Your task to perform on an android device: install app "Lyft - Rideshare, Bikes, Scooters & Transit" Image 0: 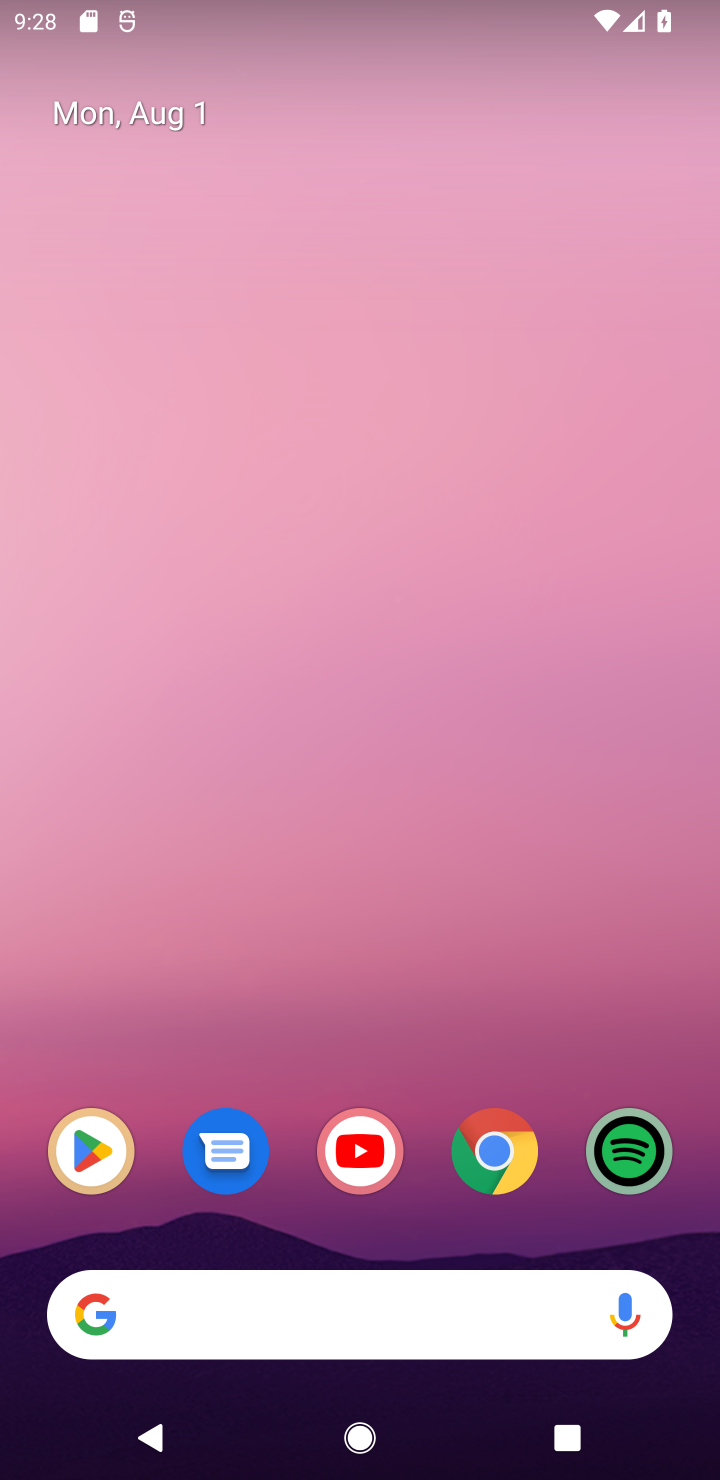
Step 0: drag from (395, 1245) to (404, 123)
Your task to perform on an android device: install app "Lyft - Rideshare, Bikes, Scooters & Transit" Image 1: 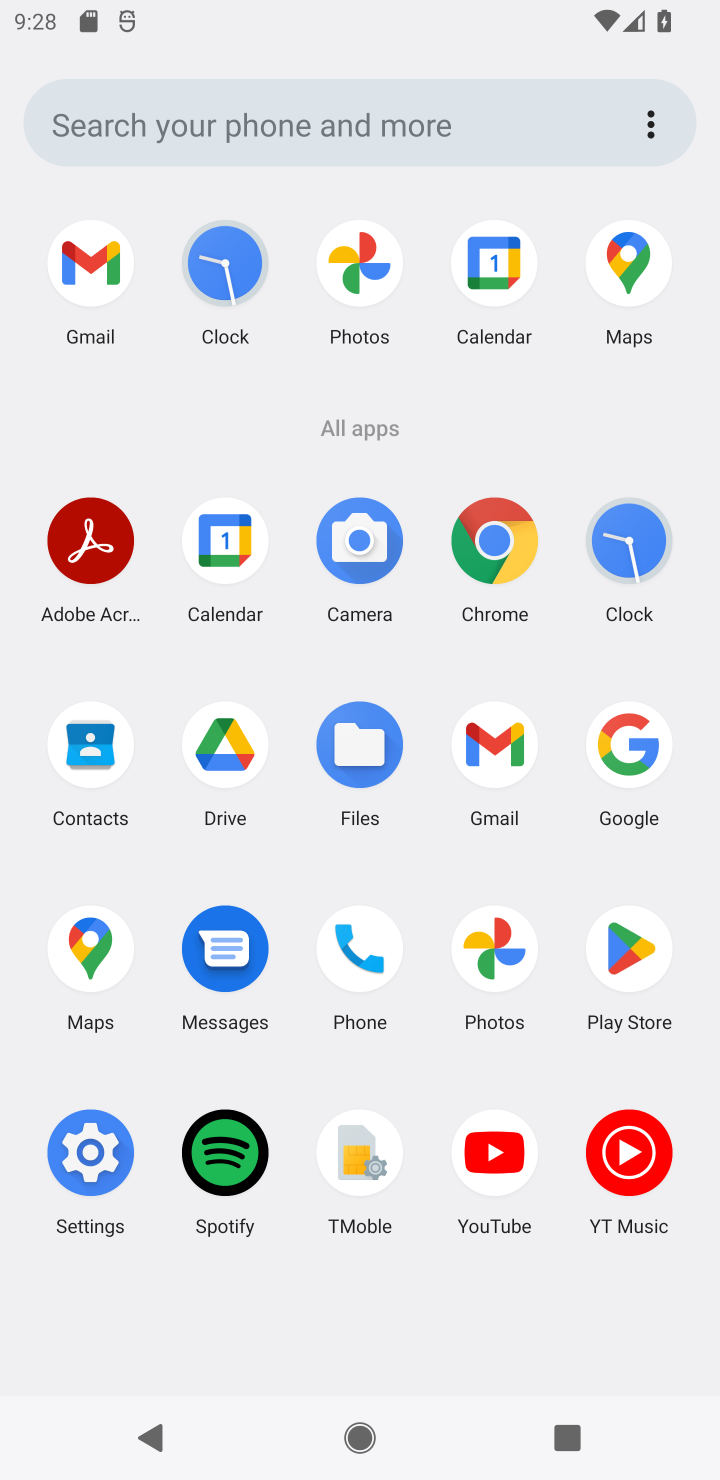
Step 1: click (634, 943)
Your task to perform on an android device: install app "Lyft - Rideshare, Bikes, Scooters & Transit" Image 2: 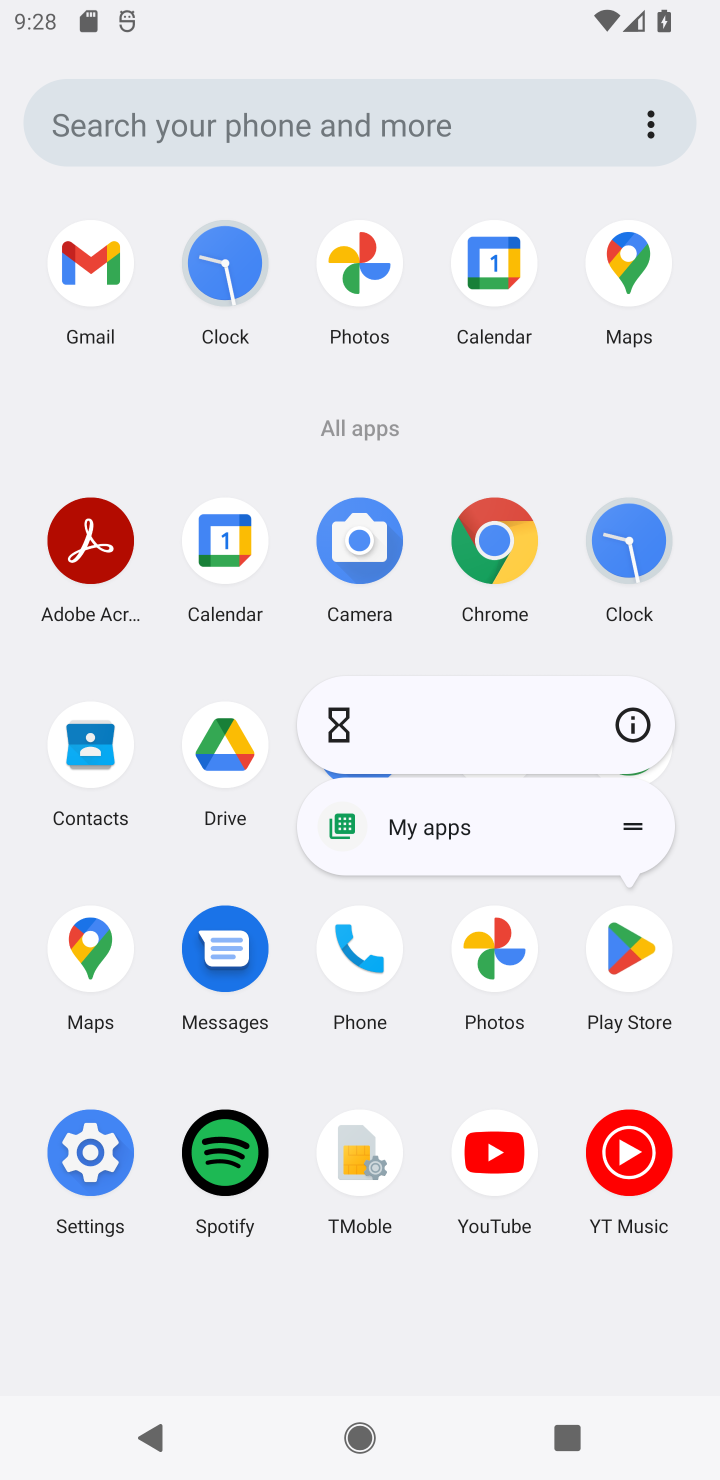
Step 2: click (610, 967)
Your task to perform on an android device: install app "Lyft - Rideshare, Bikes, Scooters & Transit" Image 3: 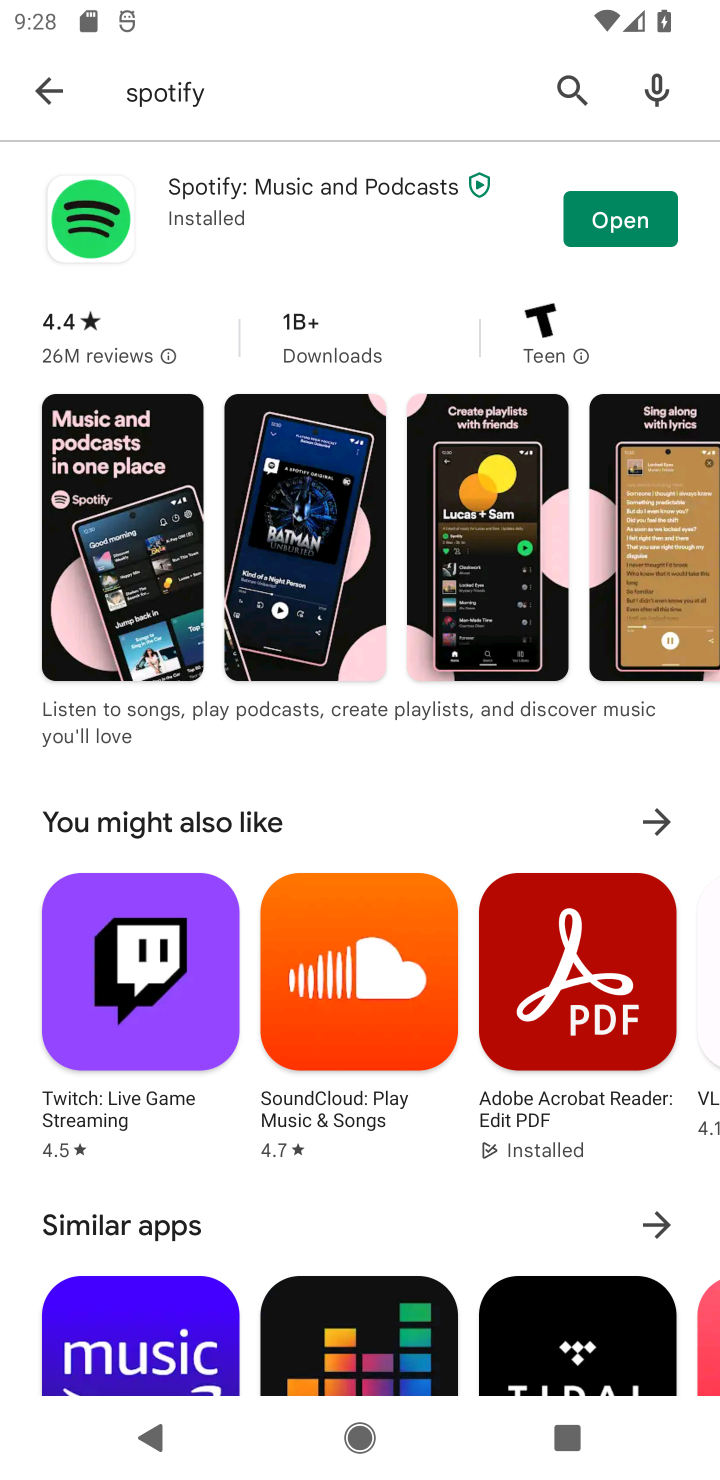
Step 3: click (610, 967)
Your task to perform on an android device: install app "Lyft - Rideshare, Bikes, Scooters & Transit" Image 4: 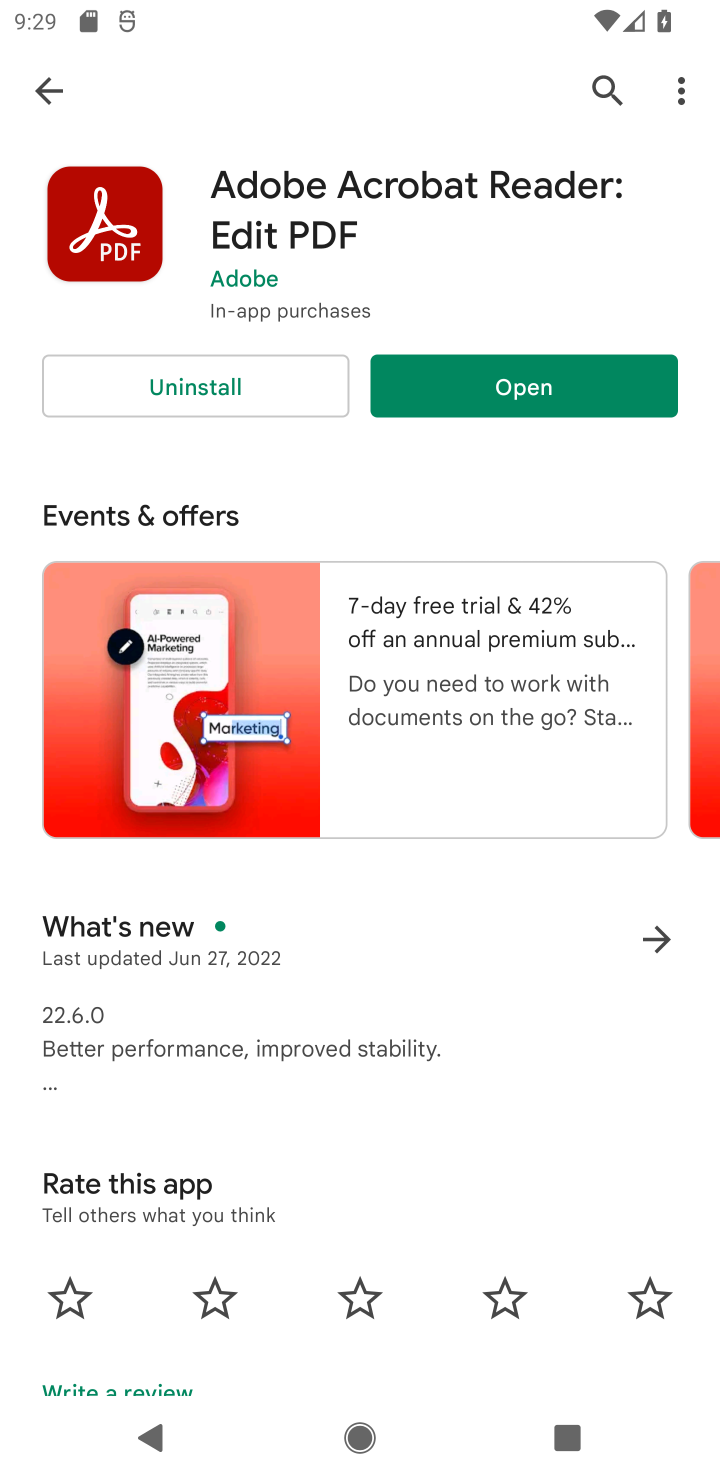
Step 4: click (49, 102)
Your task to perform on an android device: install app "Lyft - Rideshare, Bikes, Scooters & Transit" Image 5: 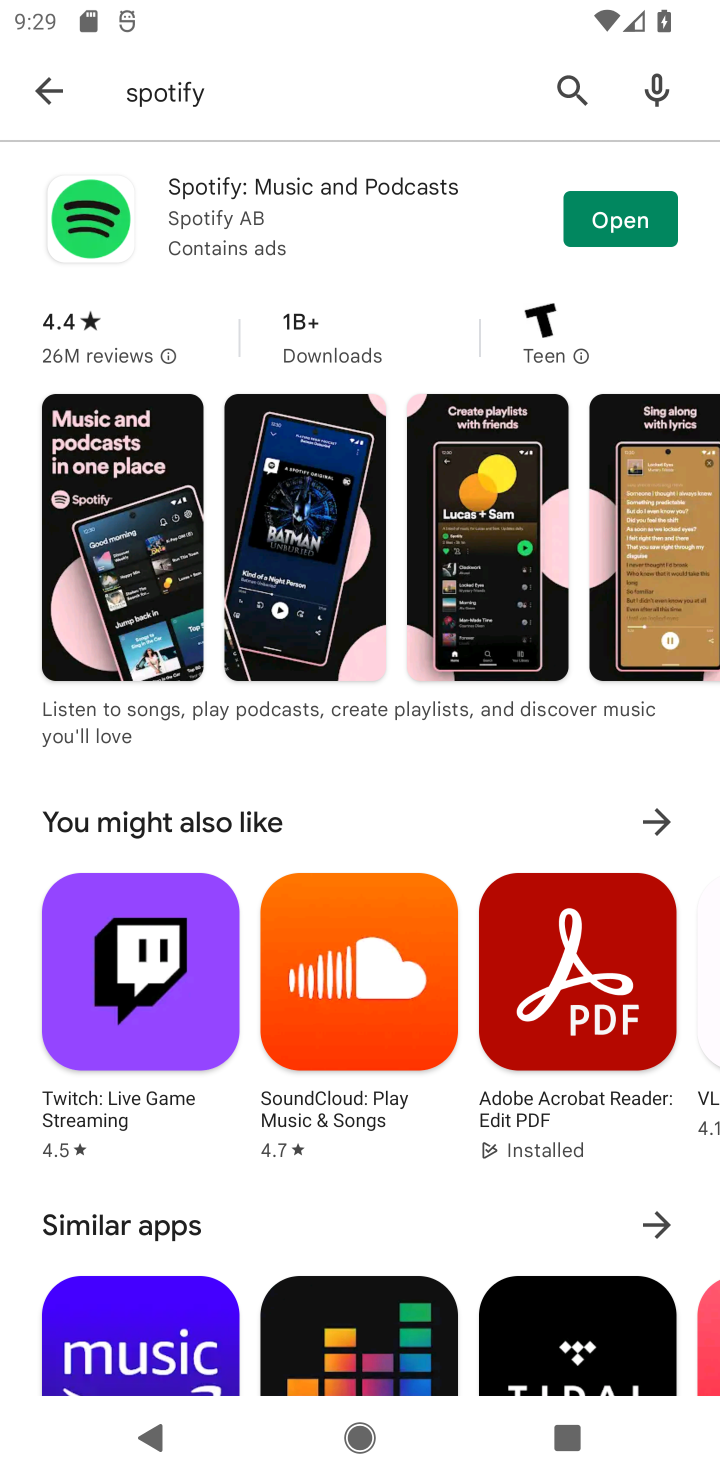
Step 5: click (59, 90)
Your task to perform on an android device: install app "Lyft - Rideshare, Bikes, Scooters & Transit" Image 6: 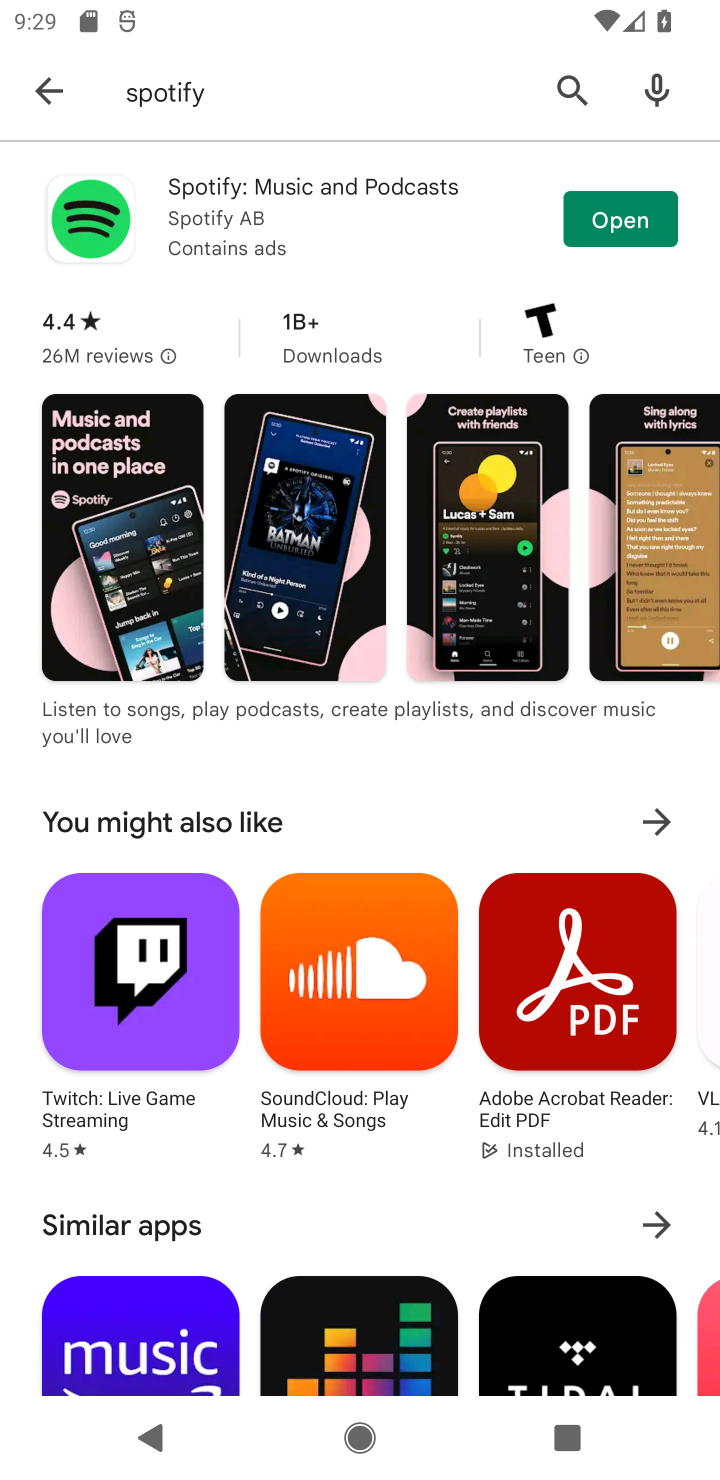
Step 6: click (577, 86)
Your task to perform on an android device: install app "Lyft - Rideshare, Bikes, Scooters & Transit" Image 7: 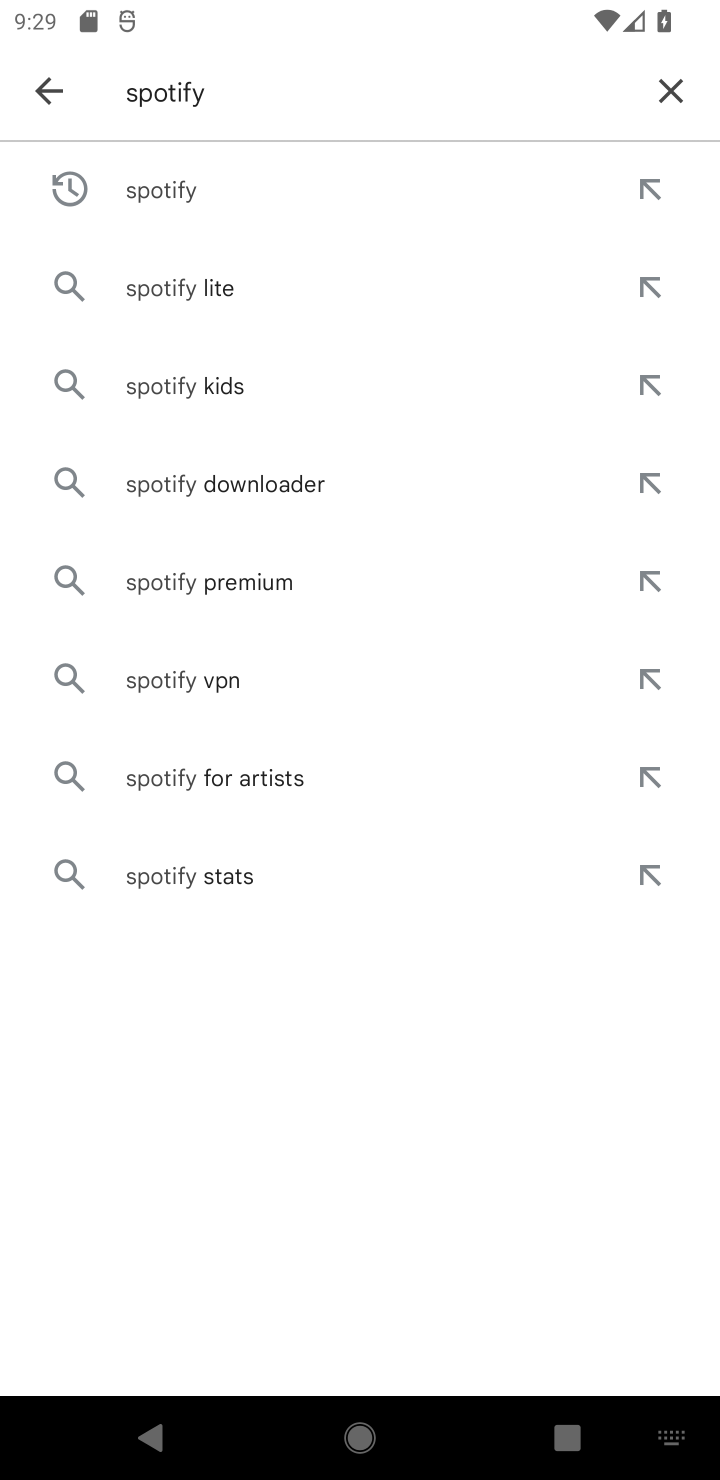
Step 7: click (675, 92)
Your task to perform on an android device: install app "Lyft - Rideshare, Bikes, Scooters & Transit" Image 8: 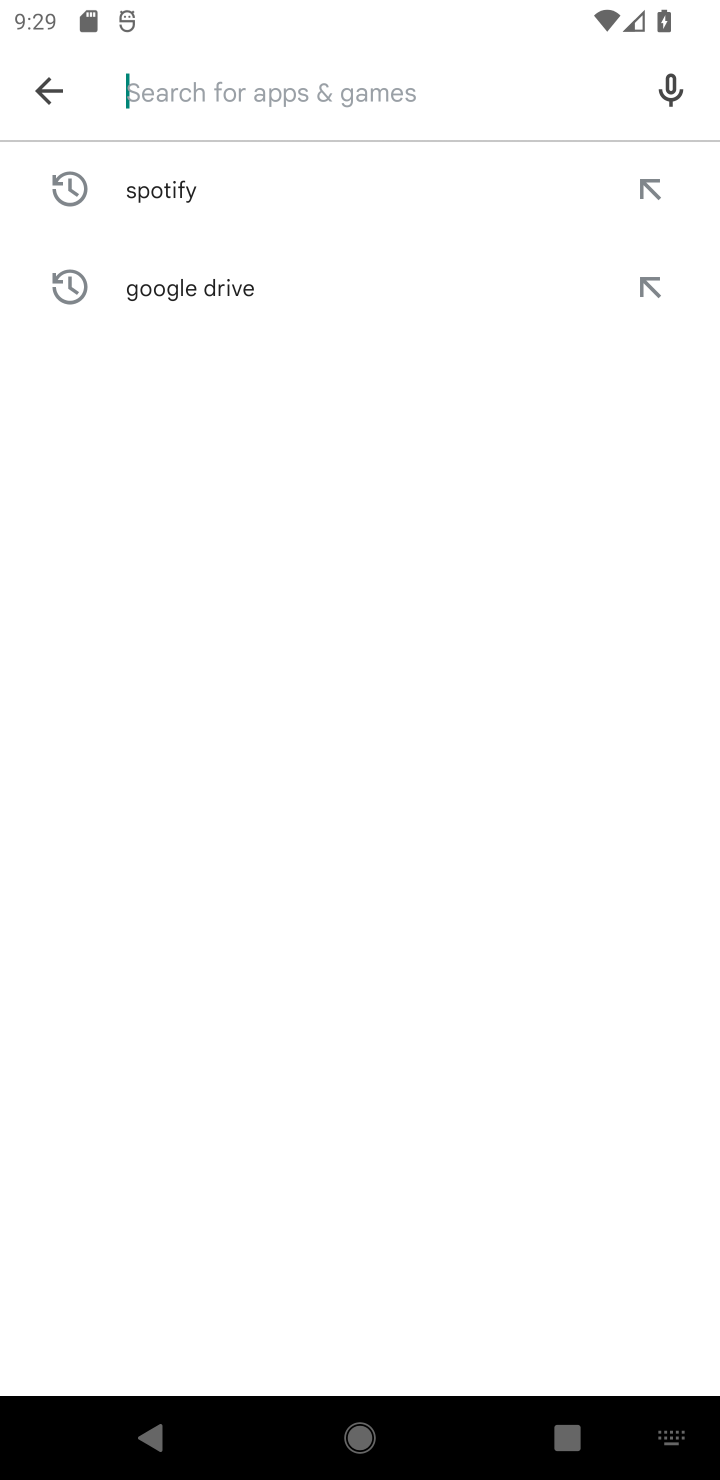
Step 8: type "Lyft - Rideshare, Bikes, Scooters & Transit"
Your task to perform on an android device: install app "Lyft - Rideshare, Bikes, Scooters & Transit" Image 9: 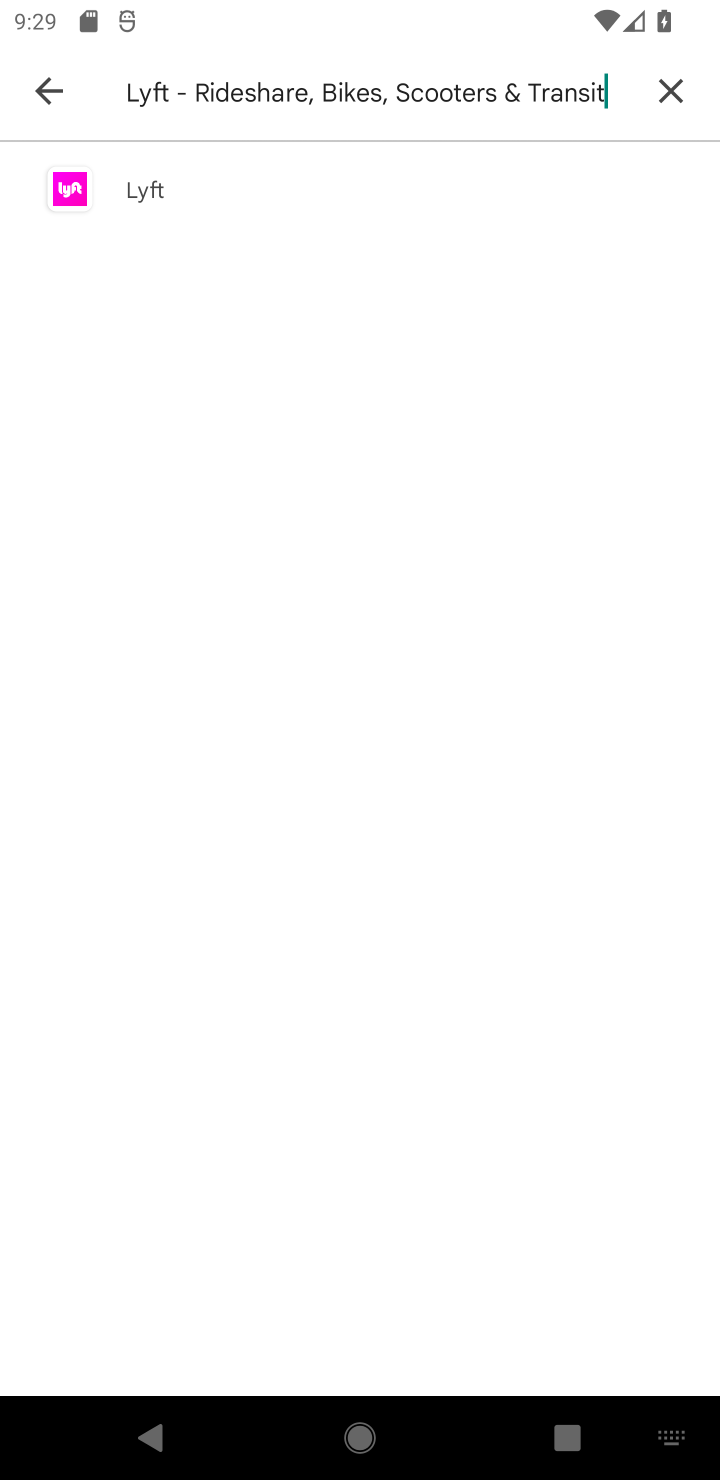
Step 9: click (179, 205)
Your task to perform on an android device: install app "Lyft - Rideshare, Bikes, Scooters & Transit" Image 10: 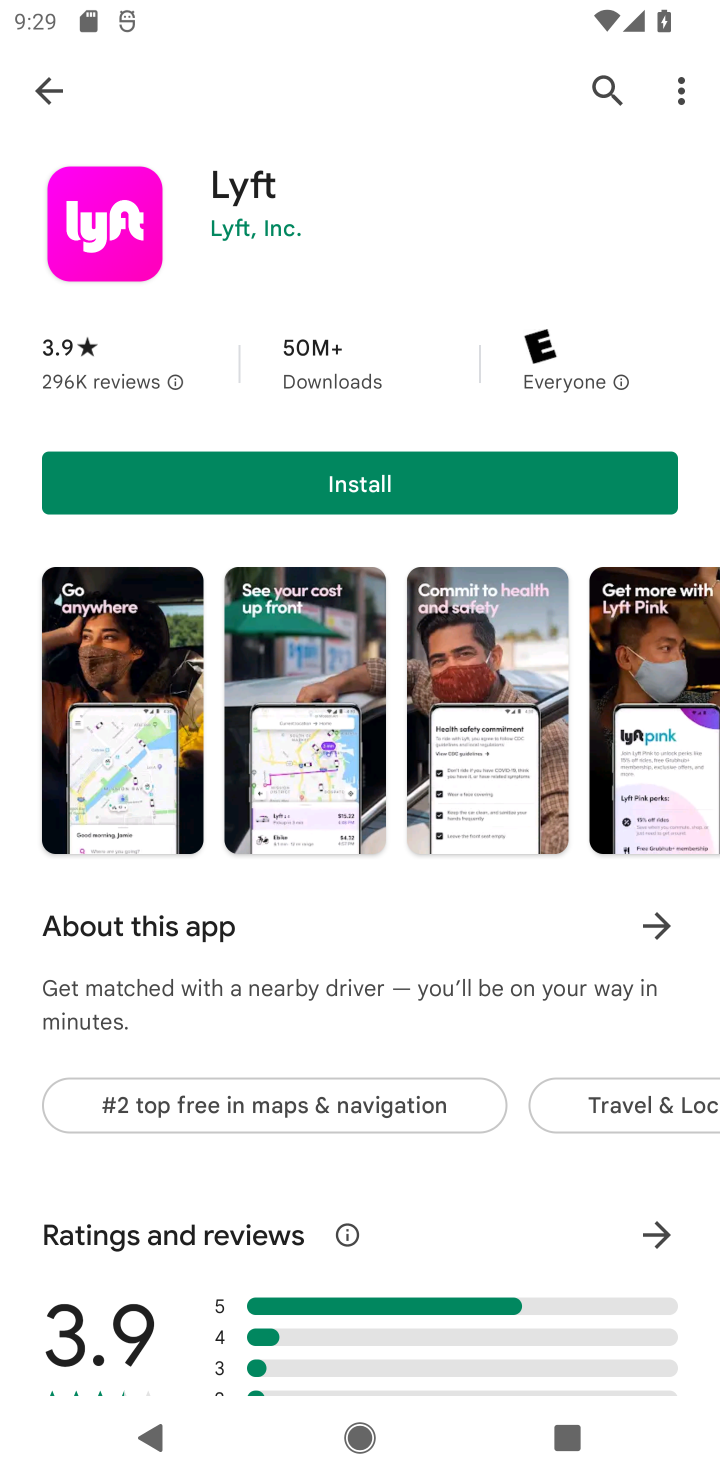
Step 10: click (372, 495)
Your task to perform on an android device: install app "Lyft - Rideshare, Bikes, Scooters & Transit" Image 11: 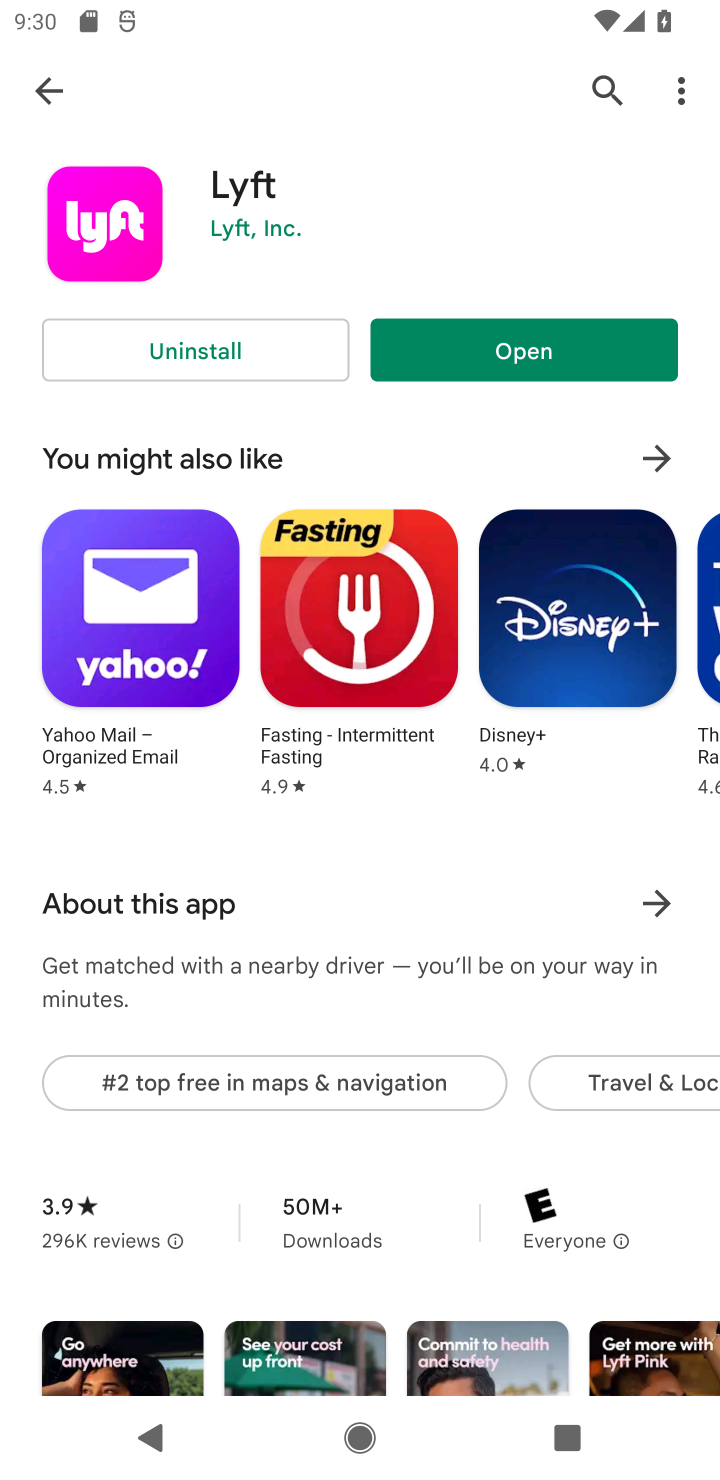
Step 11: click (410, 338)
Your task to perform on an android device: install app "Lyft - Rideshare, Bikes, Scooters & Transit" Image 12: 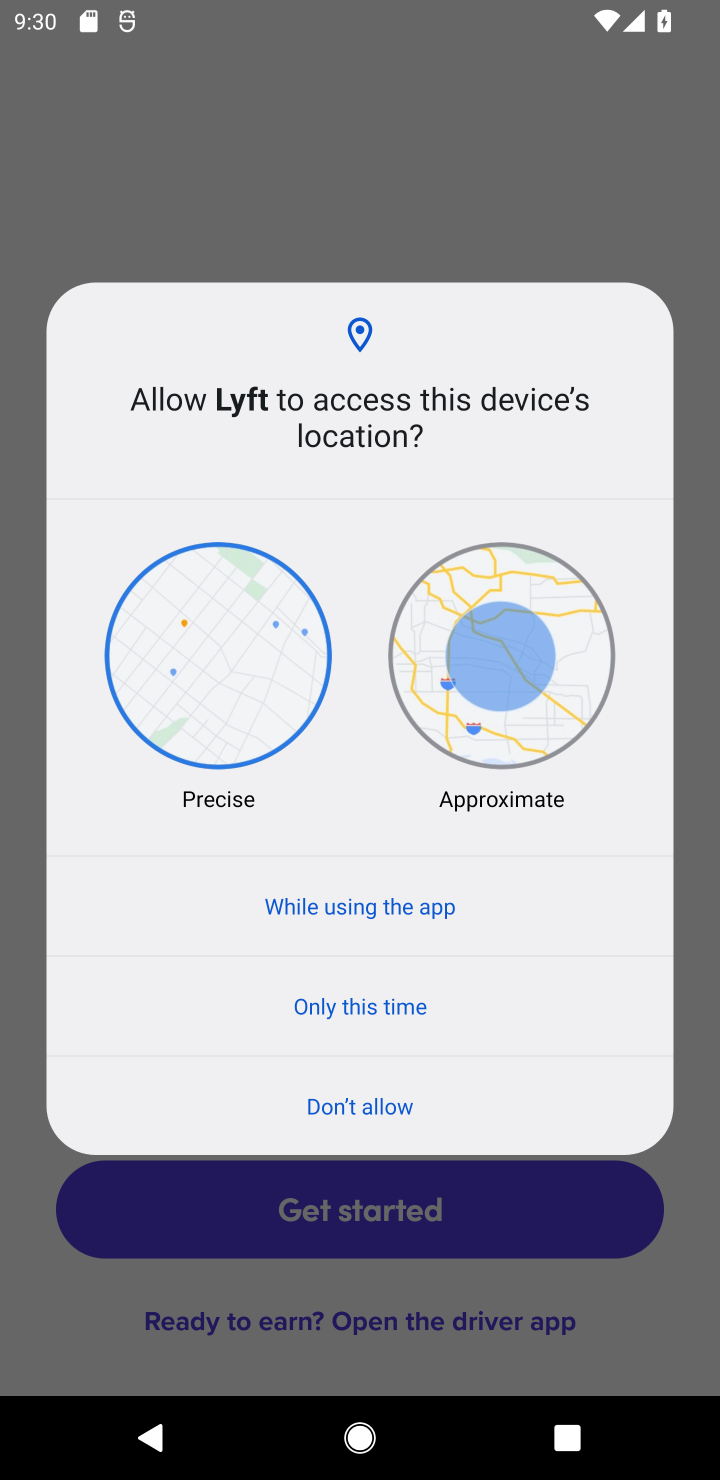
Step 12: task complete